Your task to perform on an android device: Open Google Chrome and open the bookmarks view Image 0: 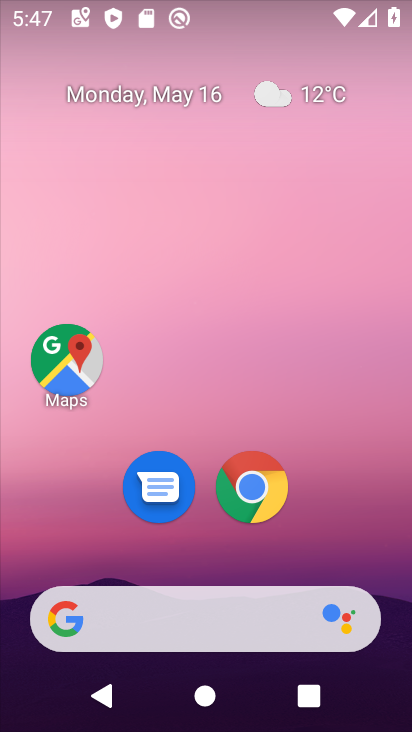
Step 0: click (262, 487)
Your task to perform on an android device: Open Google Chrome and open the bookmarks view Image 1: 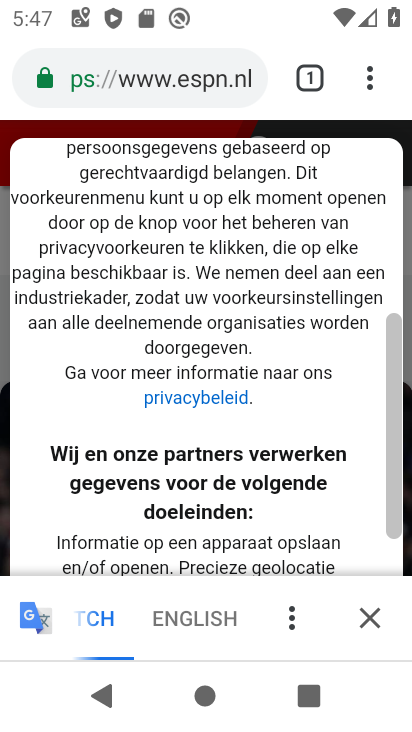
Step 1: task complete